Your task to perform on an android device: Open Google Chrome and click the shortcut for Amazon.com Image 0: 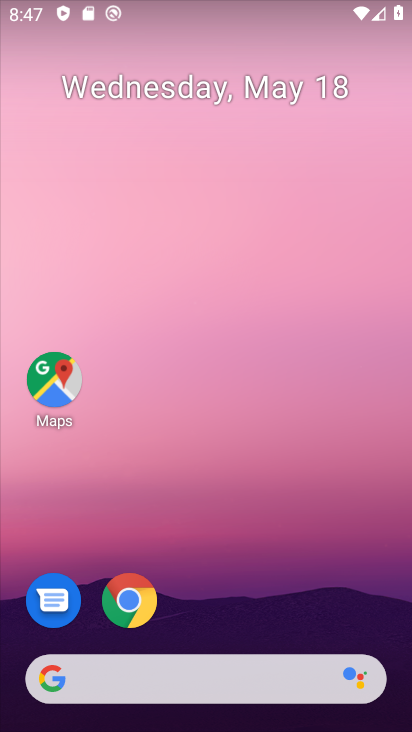
Step 0: click (138, 602)
Your task to perform on an android device: Open Google Chrome and click the shortcut for Amazon.com Image 1: 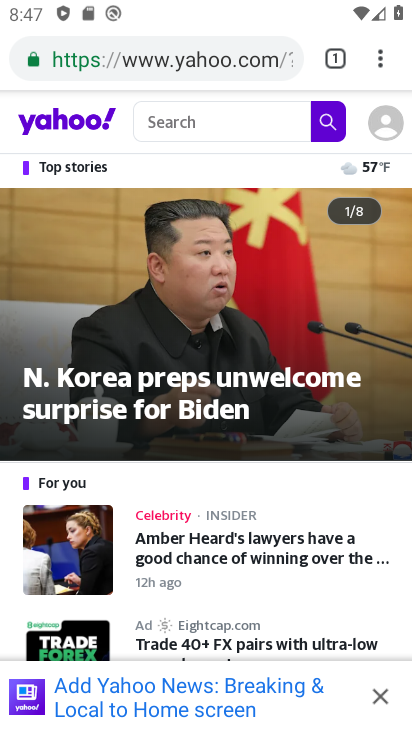
Step 1: click (328, 57)
Your task to perform on an android device: Open Google Chrome and click the shortcut for Amazon.com Image 2: 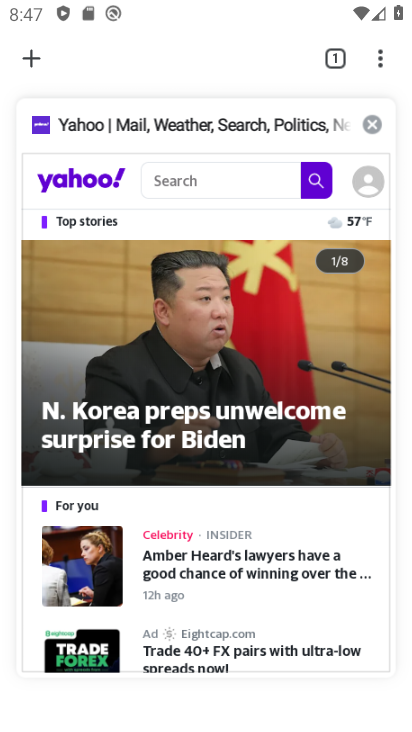
Step 2: click (363, 120)
Your task to perform on an android device: Open Google Chrome and click the shortcut for Amazon.com Image 3: 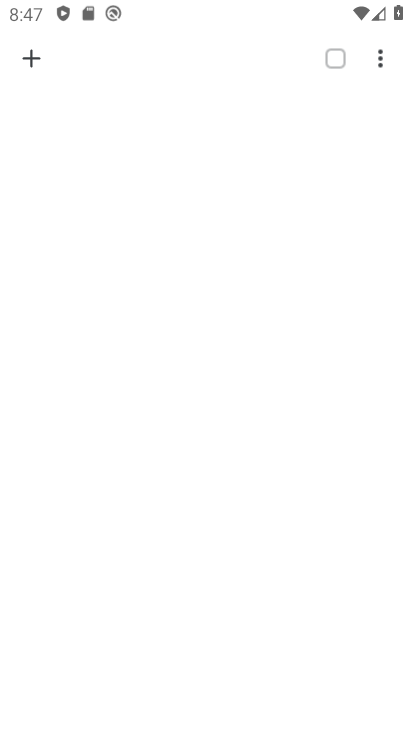
Step 3: click (25, 66)
Your task to perform on an android device: Open Google Chrome and click the shortcut for Amazon.com Image 4: 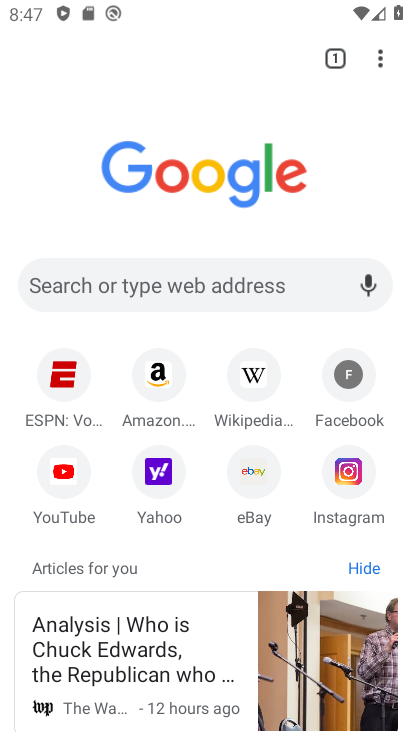
Step 4: click (162, 374)
Your task to perform on an android device: Open Google Chrome and click the shortcut for Amazon.com Image 5: 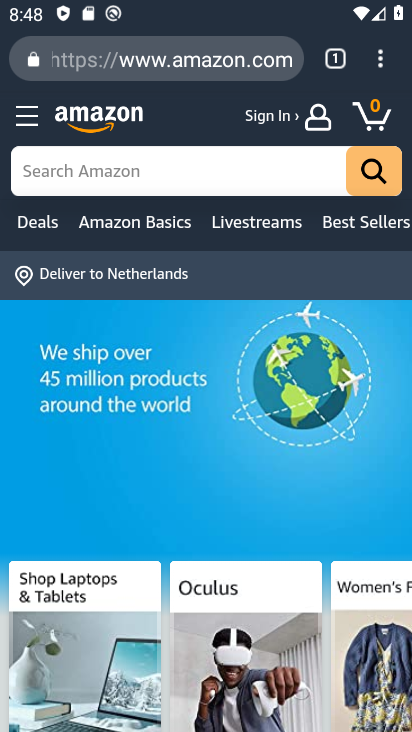
Step 5: task complete